Your task to perform on an android device: check out phone information Image 0: 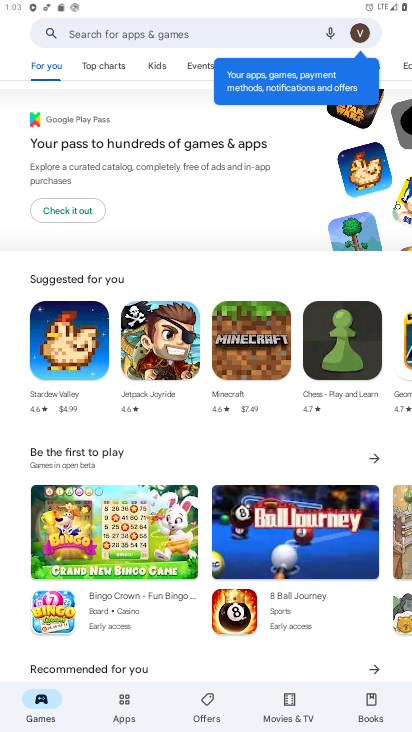
Step 0: press home button
Your task to perform on an android device: check out phone information Image 1: 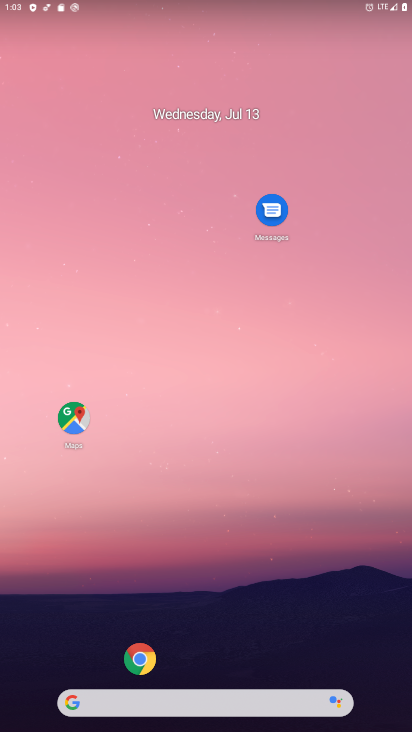
Step 1: drag from (35, 679) to (329, 50)
Your task to perform on an android device: check out phone information Image 2: 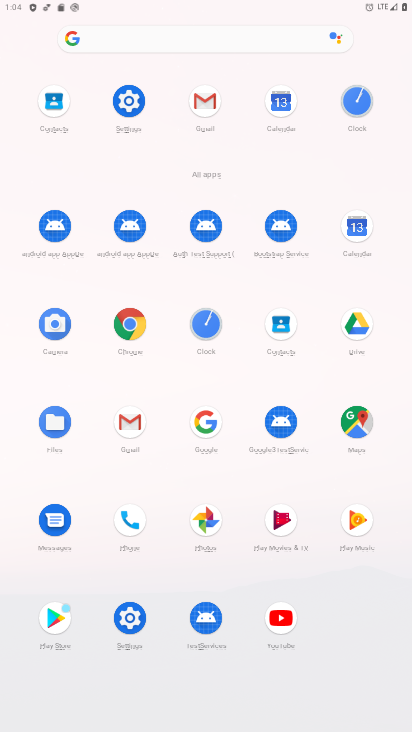
Step 2: click (115, 509)
Your task to perform on an android device: check out phone information Image 3: 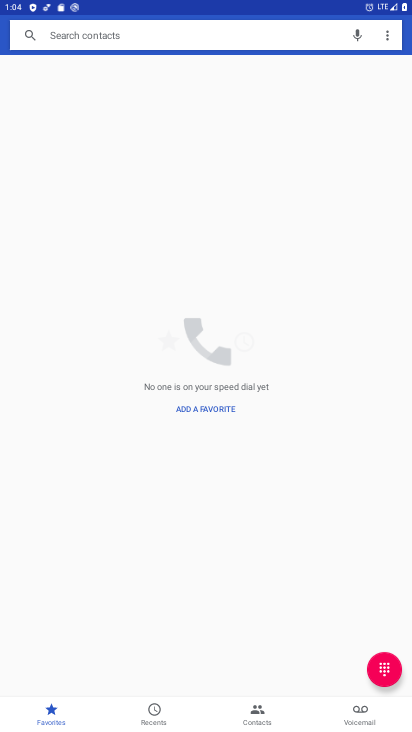
Step 3: task complete